Your task to perform on an android device: Open settings on Google Maps Image 0: 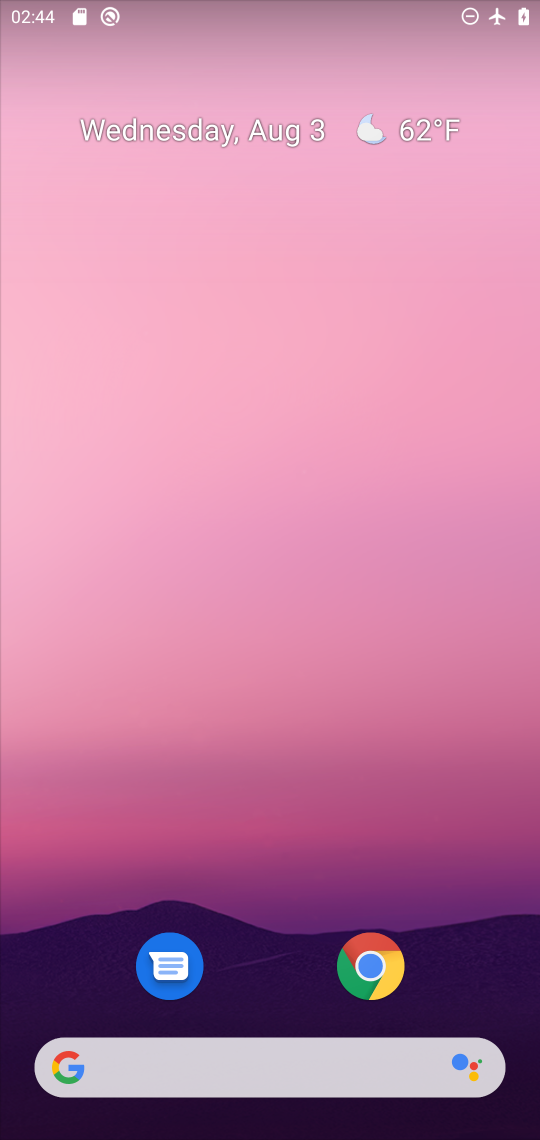
Step 0: drag from (274, 975) to (240, 241)
Your task to perform on an android device: Open settings on Google Maps Image 1: 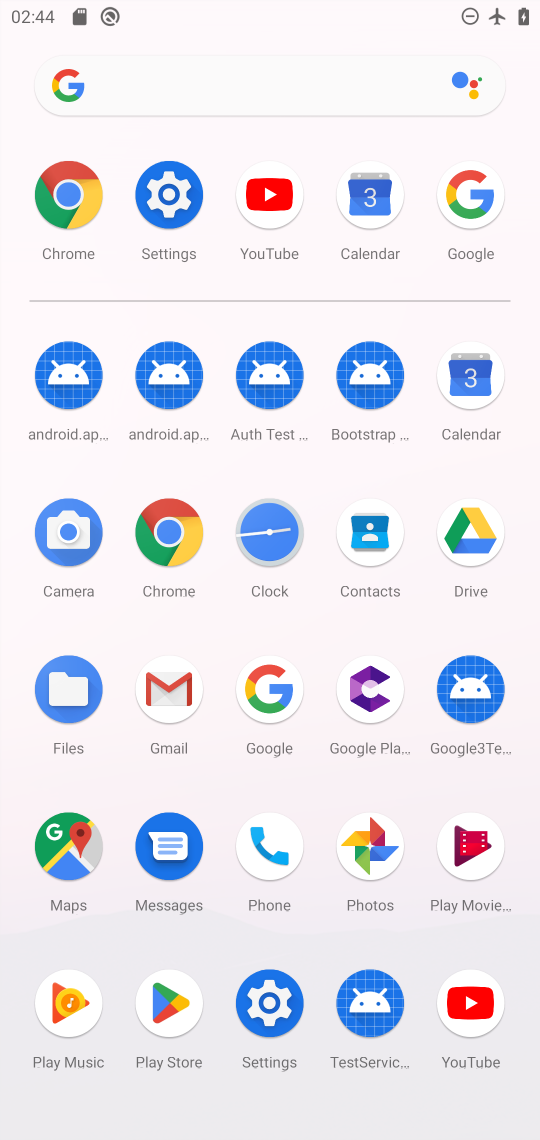
Step 1: click (83, 846)
Your task to perform on an android device: Open settings on Google Maps Image 2: 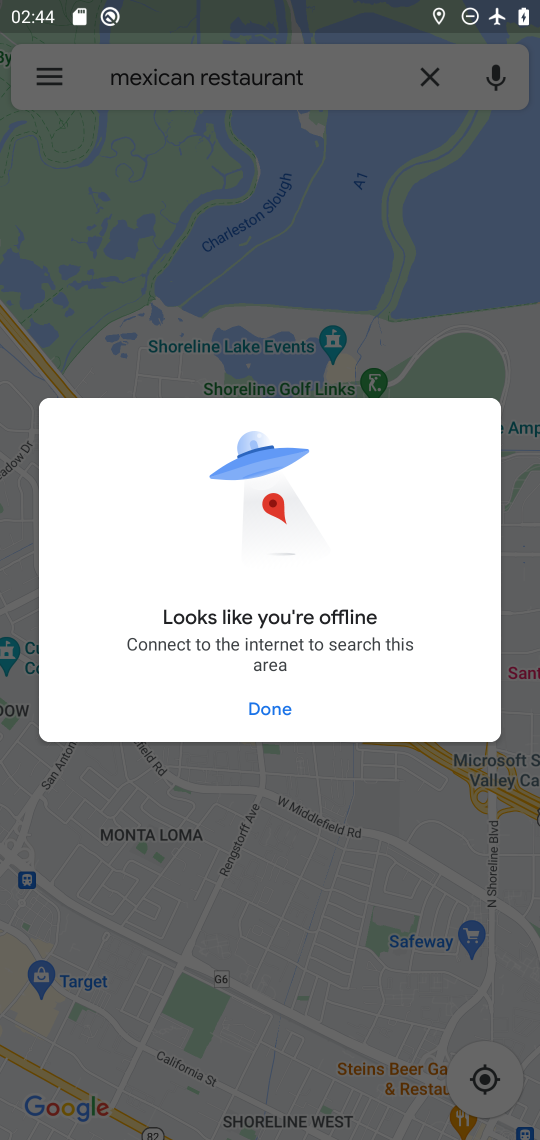
Step 2: task complete